Your task to perform on an android device: Check the news Image 0: 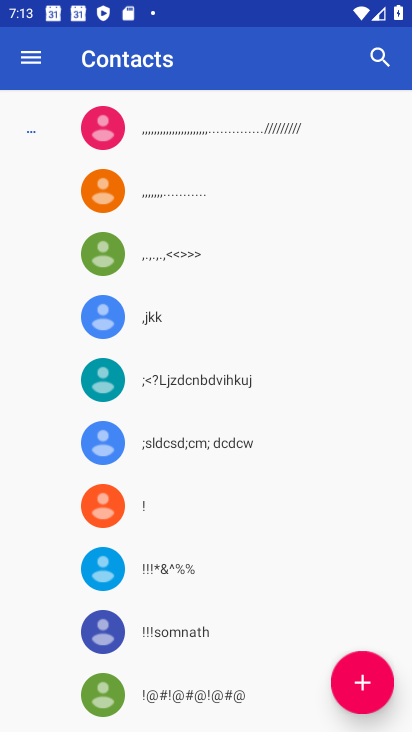
Step 0: press home button
Your task to perform on an android device: Check the news Image 1: 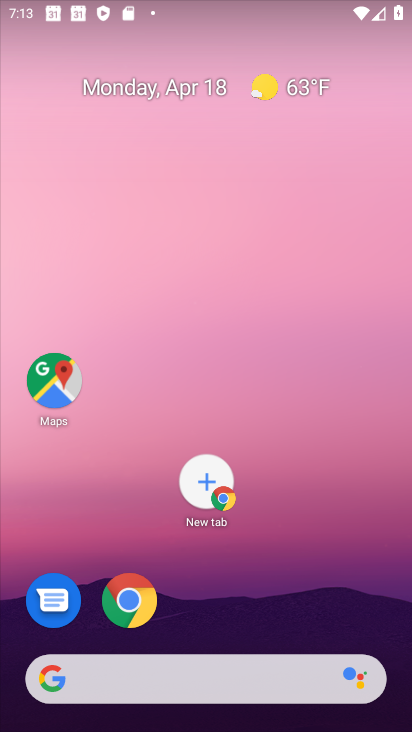
Step 1: task complete